Your task to perform on an android device: stop showing notifications on the lock screen Image 0: 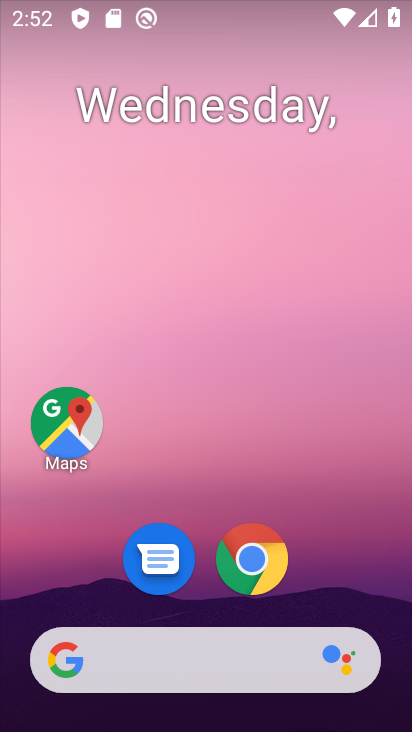
Step 0: drag from (358, 603) to (371, 275)
Your task to perform on an android device: stop showing notifications on the lock screen Image 1: 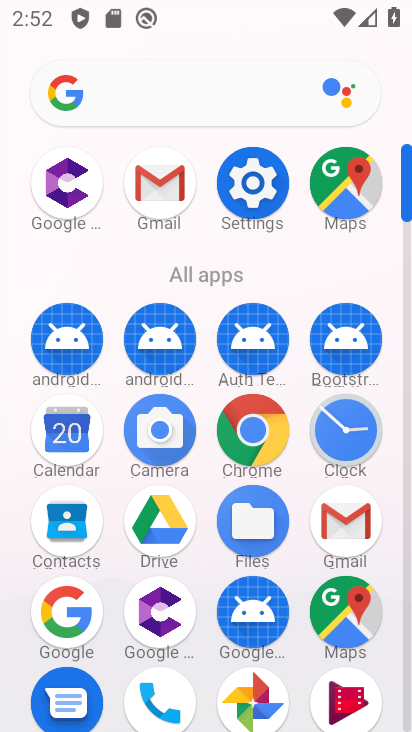
Step 1: drag from (391, 468) to (382, 249)
Your task to perform on an android device: stop showing notifications on the lock screen Image 2: 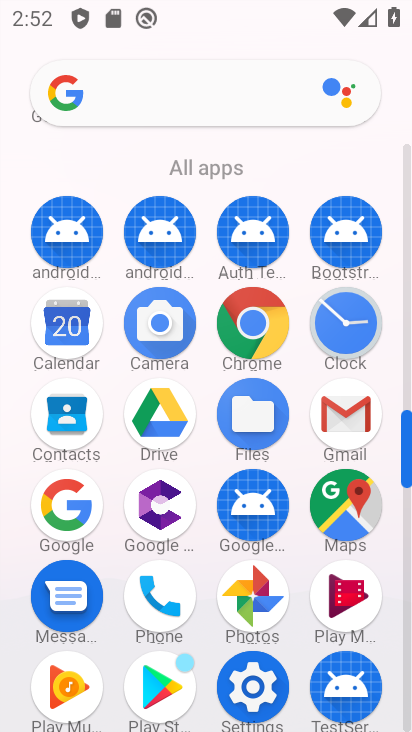
Step 2: click (234, 683)
Your task to perform on an android device: stop showing notifications on the lock screen Image 3: 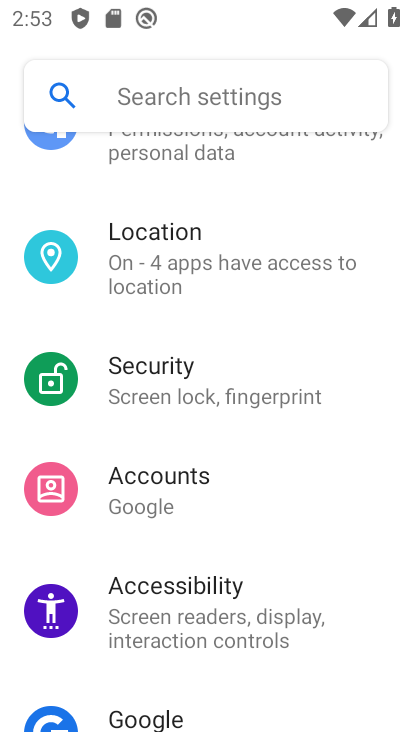
Step 3: click (308, 598)
Your task to perform on an android device: stop showing notifications on the lock screen Image 4: 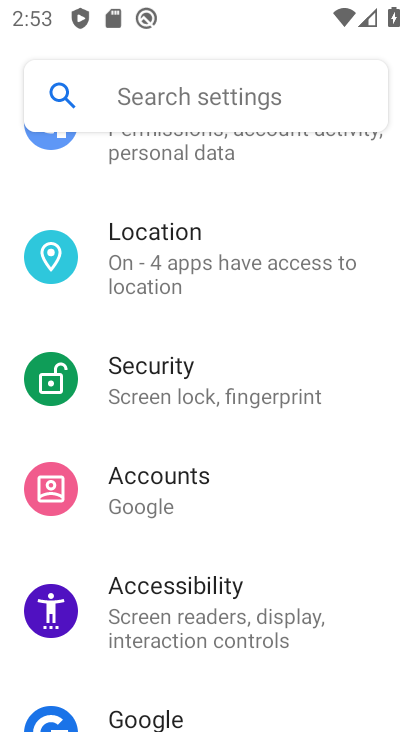
Step 4: drag from (342, 195) to (300, 646)
Your task to perform on an android device: stop showing notifications on the lock screen Image 5: 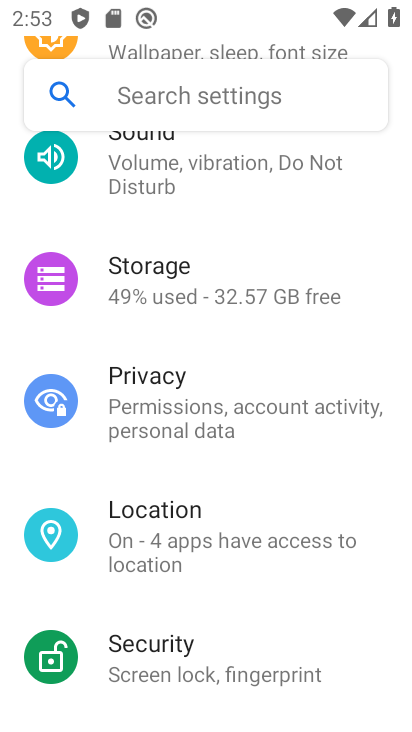
Step 5: drag from (299, 333) to (280, 646)
Your task to perform on an android device: stop showing notifications on the lock screen Image 6: 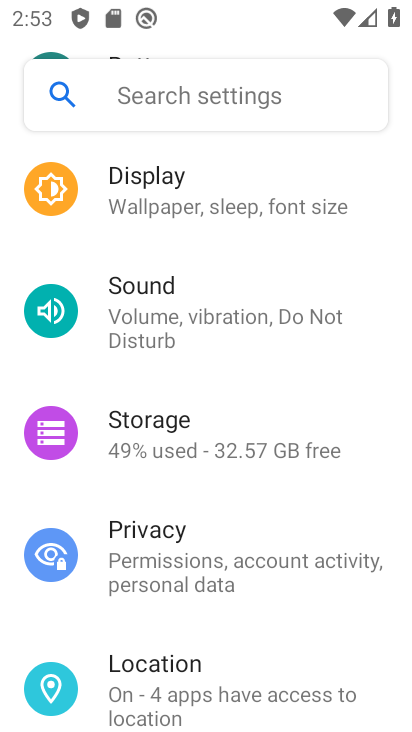
Step 6: drag from (244, 264) to (246, 575)
Your task to perform on an android device: stop showing notifications on the lock screen Image 7: 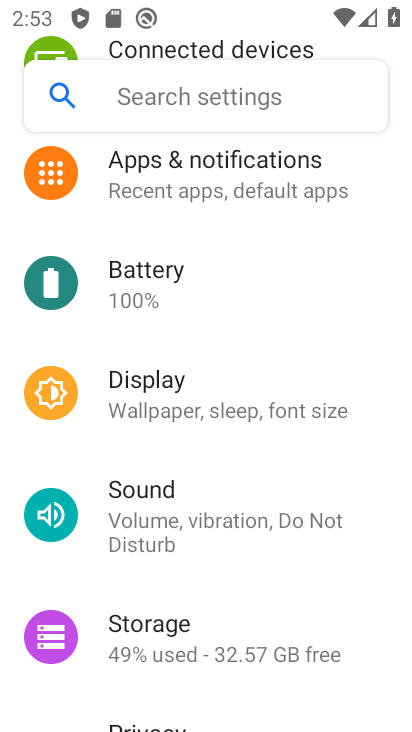
Step 7: click (235, 180)
Your task to perform on an android device: stop showing notifications on the lock screen Image 8: 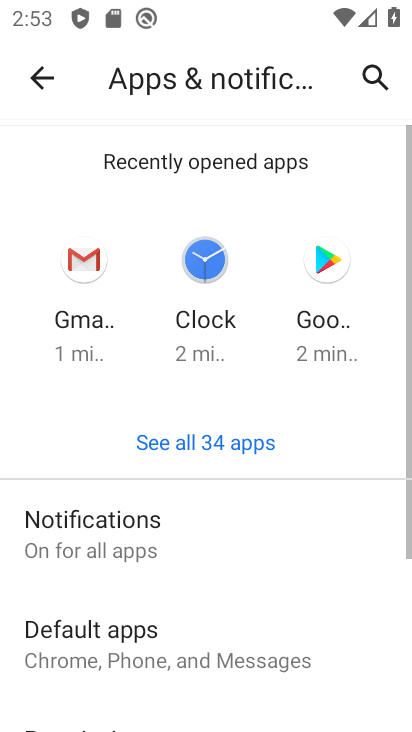
Step 8: click (138, 530)
Your task to perform on an android device: stop showing notifications on the lock screen Image 9: 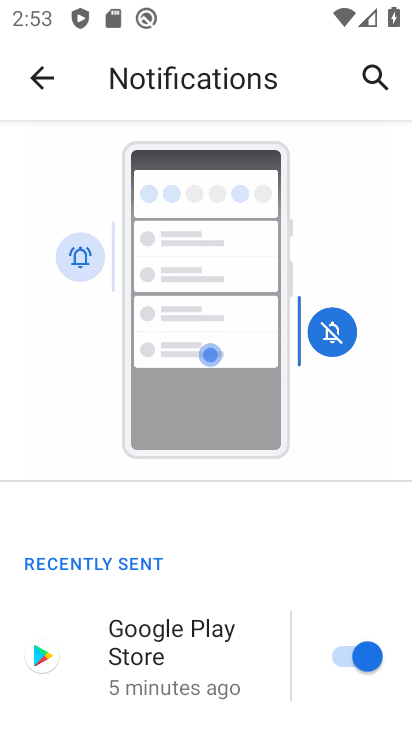
Step 9: drag from (247, 664) to (245, 282)
Your task to perform on an android device: stop showing notifications on the lock screen Image 10: 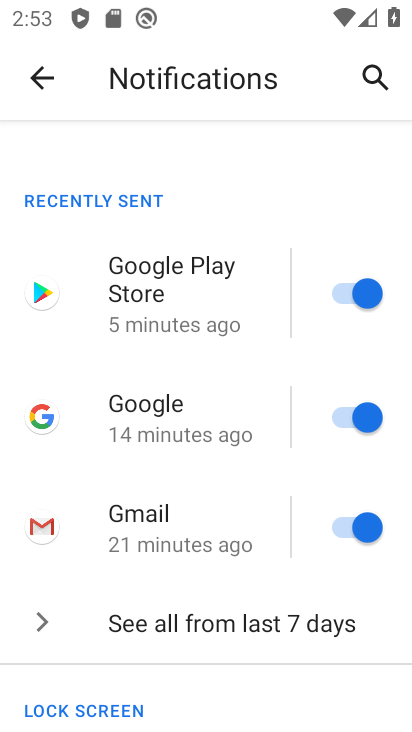
Step 10: drag from (237, 684) to (288, 253)
Your task to perform on an android device: stop showing notifications on the lock screen Image 11: 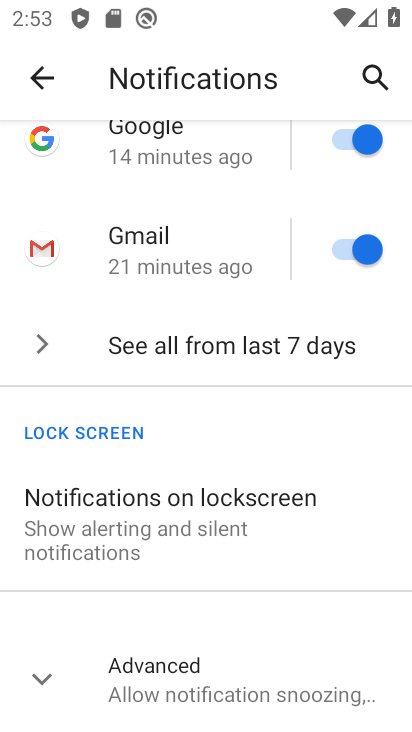
Step 11: click (182, 531)
Your task to perform on an android device: stop showing notifications on the lock screen Image 12: 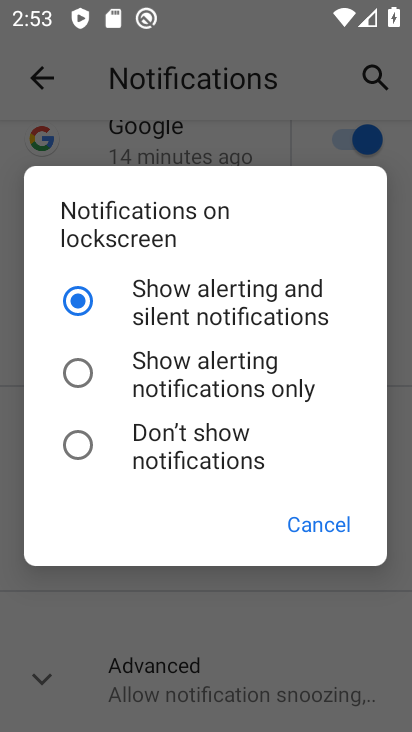
Step 12: click (172, 431)
Your task to perform on an android device: stop showing notifications on the lock screen Image 13: 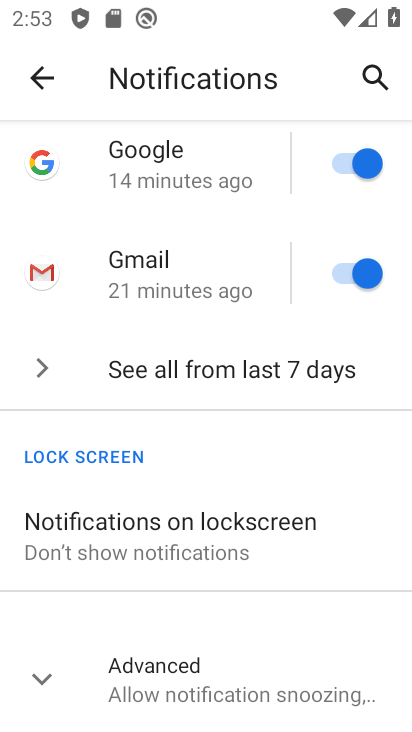
Step 13: task complete